Your task to perform on an android device: turn on javascript in the chrome app Image 0: 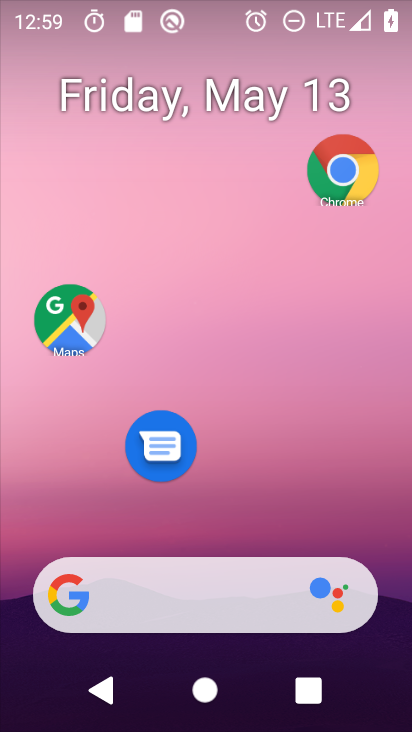
Step 0: drag from (190, 579) to (200, 62)
Your task to perform on an android device: turn on javascript in the chrome app Image 1: 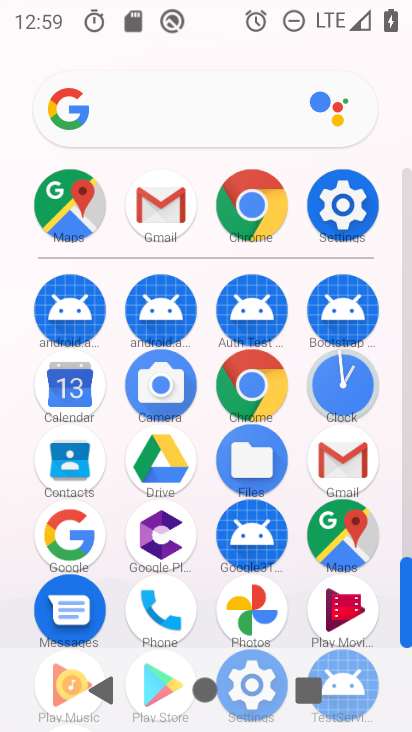
Step 1: click (256, 392)
Your task to perform on an android device: turn on javascript in the chrome app Image 2: 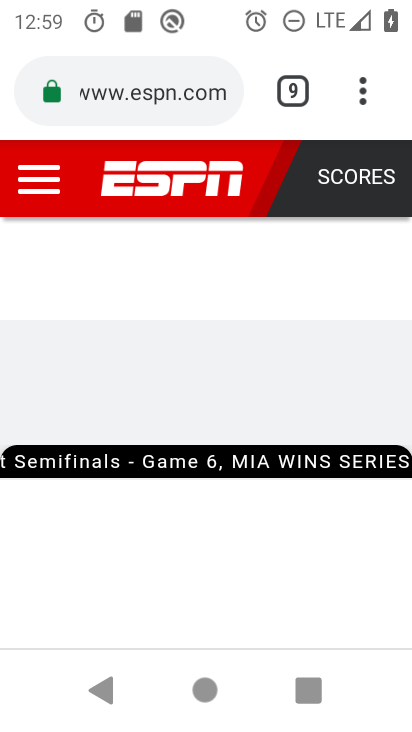
Step 2: drag from (360, 77) to (153, 477)
Your task to perform on an android device: turn on javascript in the chrome app Image 3: 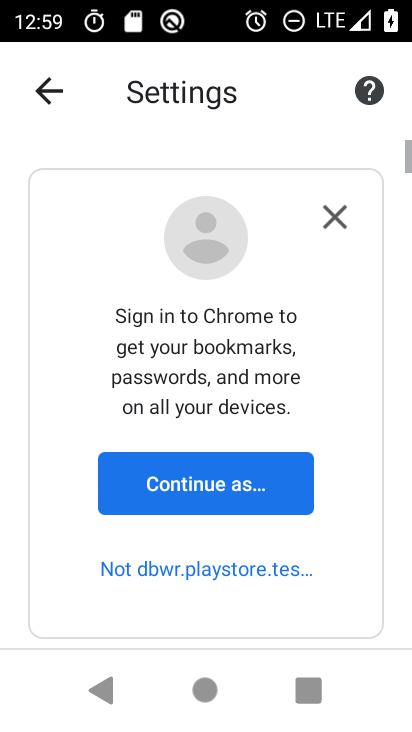
Step 3: drag from (293, 604) to (330, 176)
Your task to perform on an android device: turn on javascript in the chrome app Image 4: 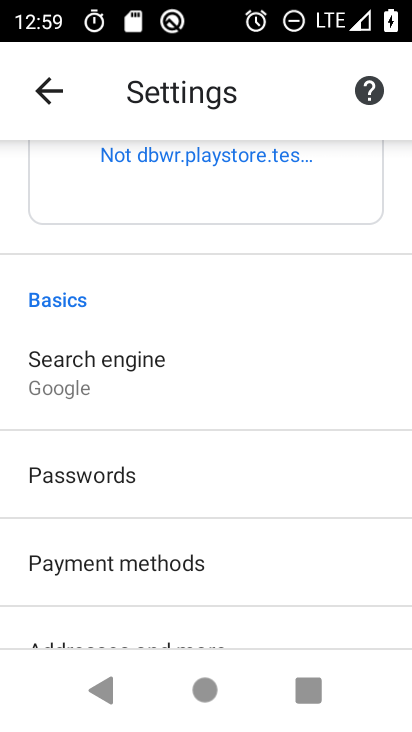
Step 4: drag from (222, 577) to (283, 176)
Your task to perform on an android device: turn on javascript in the chrome app Image 5: 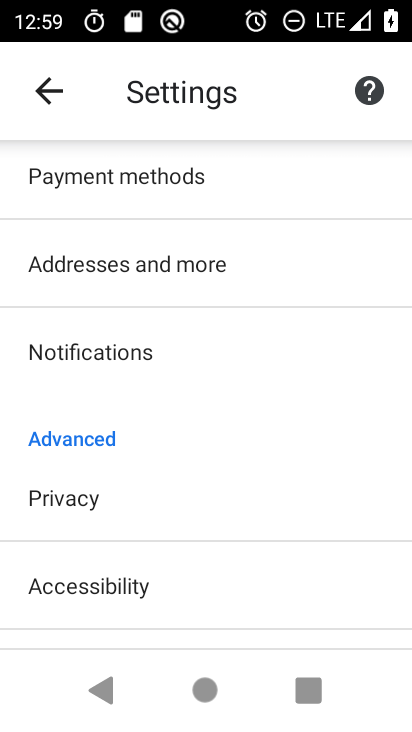
Step 5: drag from (208, 612) to (295, 207)
Your task to perform on an android device: turn on javascript in the chrome app Image 6: 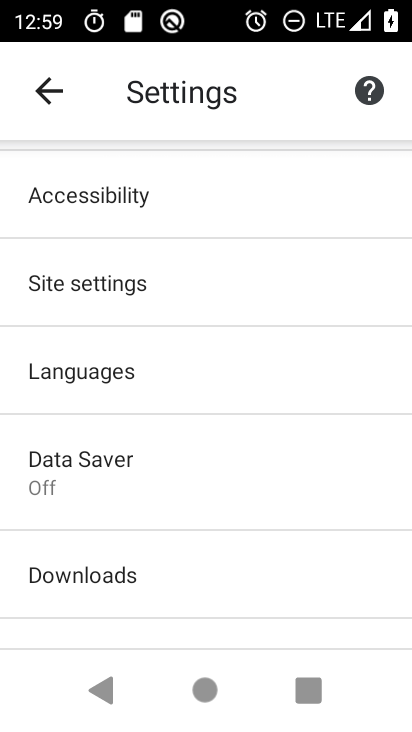
Step 6: click (249, 302)
Your task to perform on an android device: turn on javascript in the chrome app Image 7: 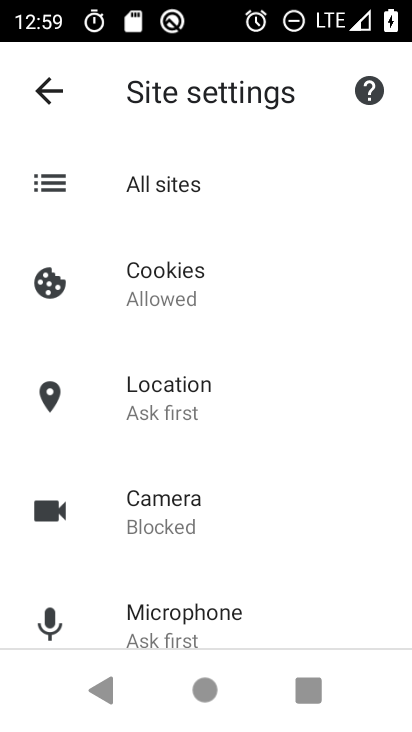
Step 7: drag from (245, 587) to (266, 71)
Your task to perform on an android device: turn on javascript in the chrome app Image 8: 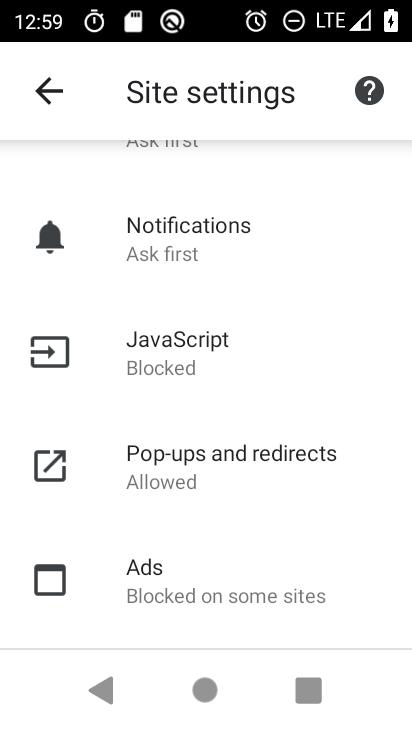
Step 8: click (231, 358)
Your task to perform on an android device: turn on javascript in the chrome app Image 9: 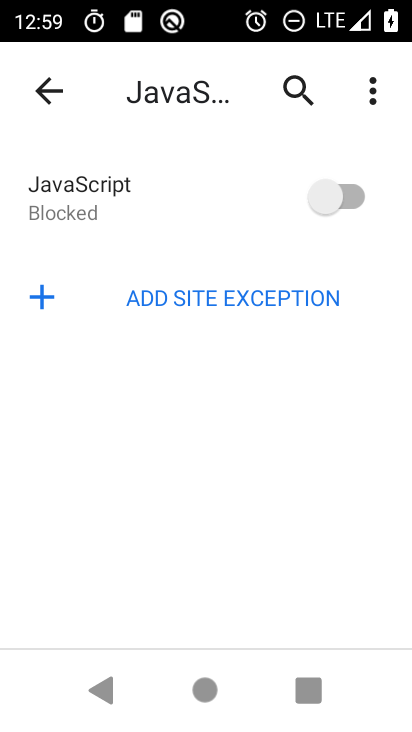
Step 9: click (359, 187)
Your task to perform on an android device: turn on javascript in the chrome app Image 10: 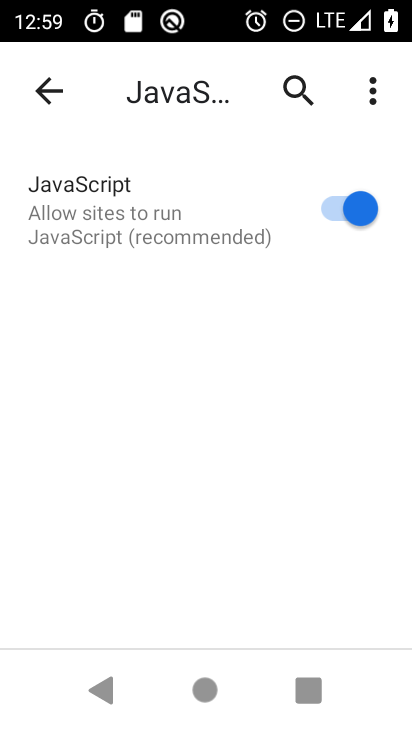
Step 10: task complete